Your task to perform on an android device: Show me popular games on the Play Store Image 0: 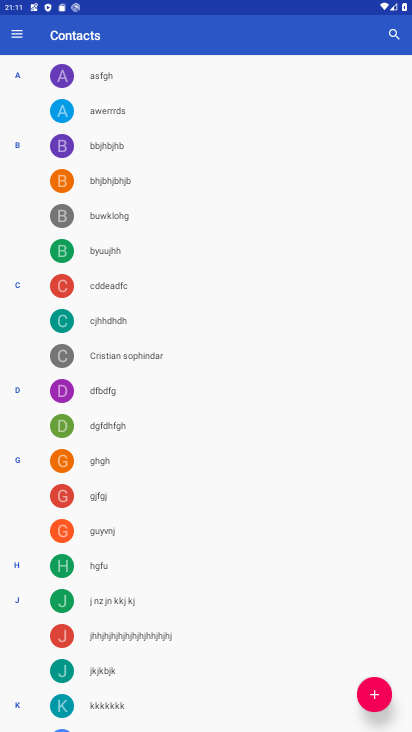
Step 0: press home button
Your task to perform on an android device: Show me popular games on the Play Store Image 1: 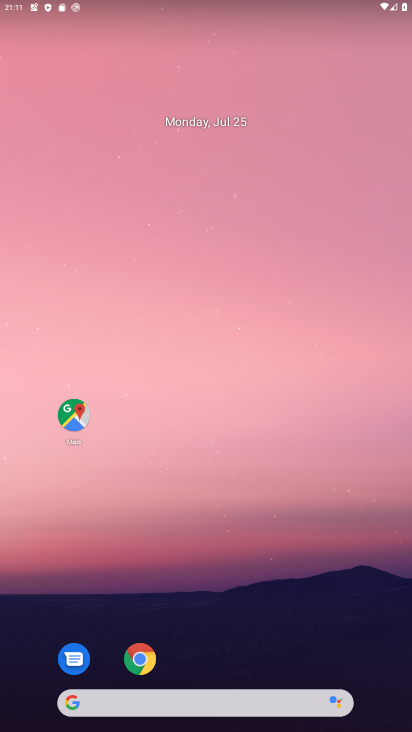
Step 1: drag from (233, 597) to (284, 233)
Your task to perform on an android device: Show me popular games on the Play Store Image 2: 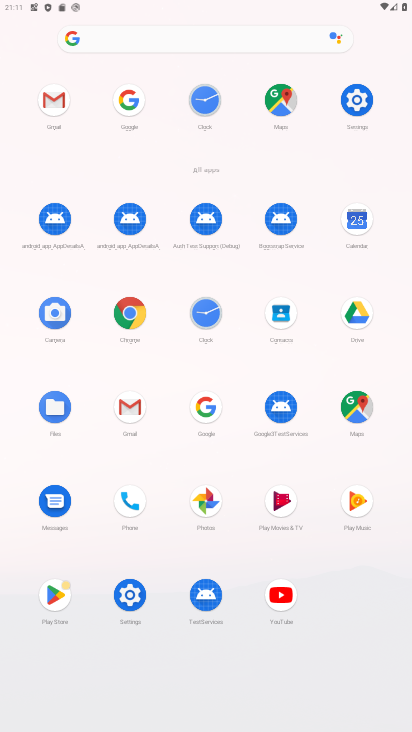
Step 2: click (47, 604)
Your task to perform on an android device: Show me popular games on the Play Store Image 3: 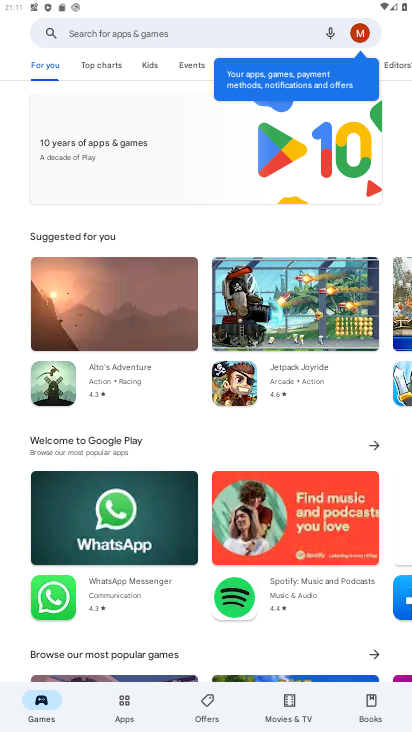
Step 3: click (98, 69)
Your task to perform on an android device: Show me popular games on the Play Store Image 4: 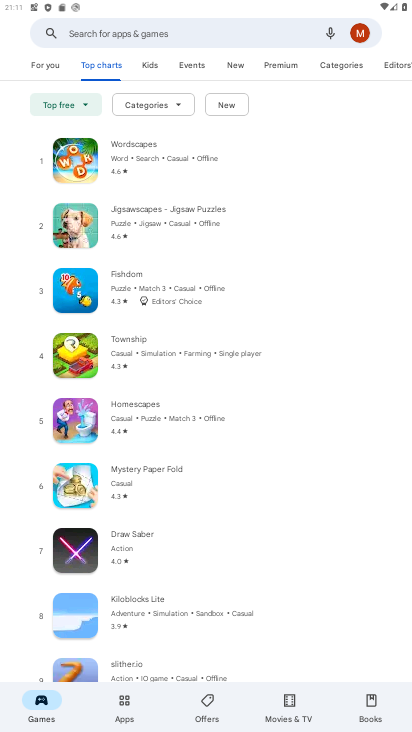
Step 4: task complete